Your task to perform on an android device: Go to ESPN.com Image 0: 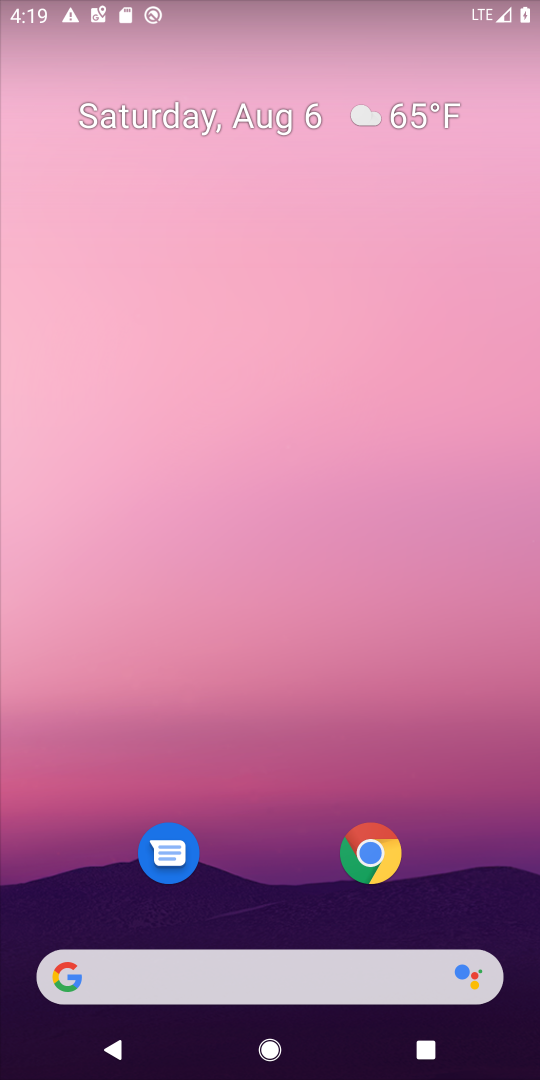
Step 0: click (364, 849)
Your task to perform on an android device: Go to ESPN.com Image 1: 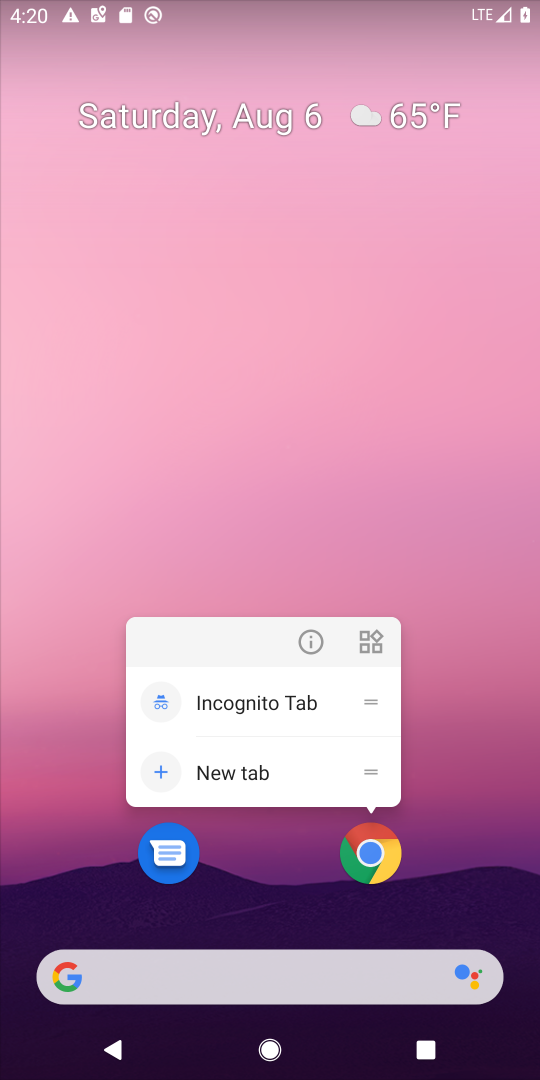
Step 1: click (364, 849)
Your task to perform on an android device: Go to ESPN.com Image 2: 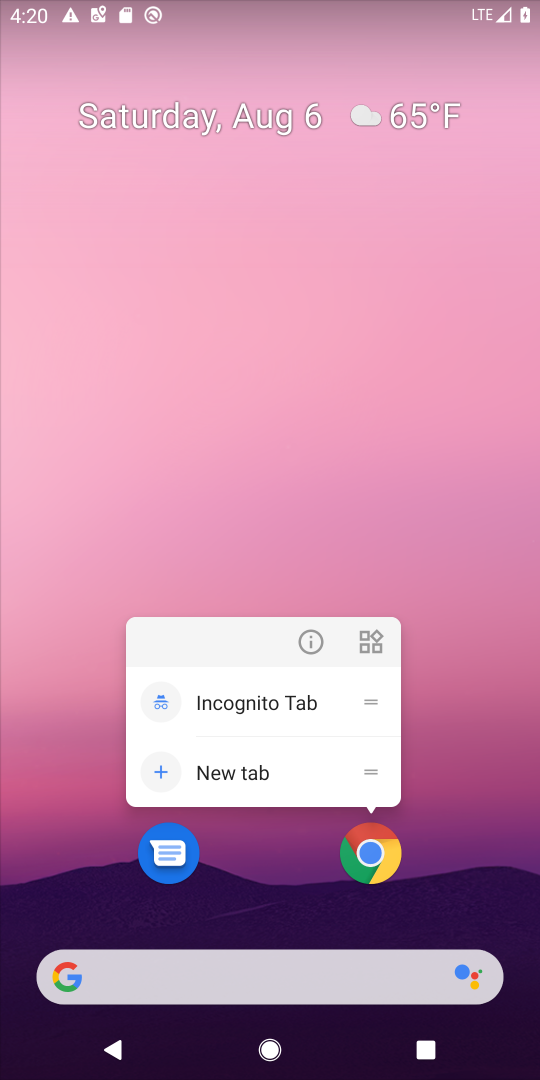
Step 2: click (365, 849)
Your task to perform on an android device: Go to ESPN.com Image 3: 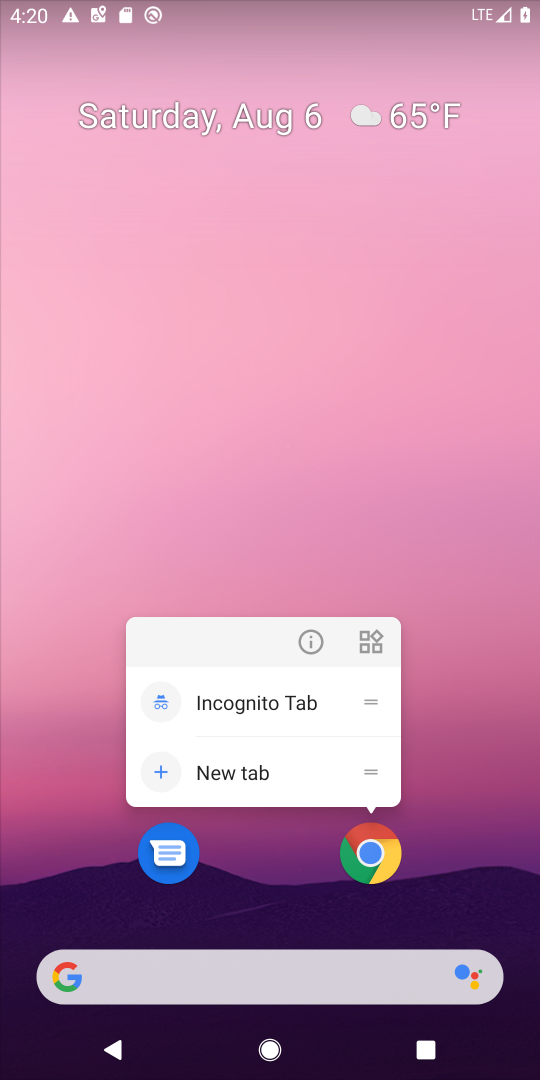
Step 3: click (376, 850)
Your task to perform on an android device: Go to ESPN.com Image 4: 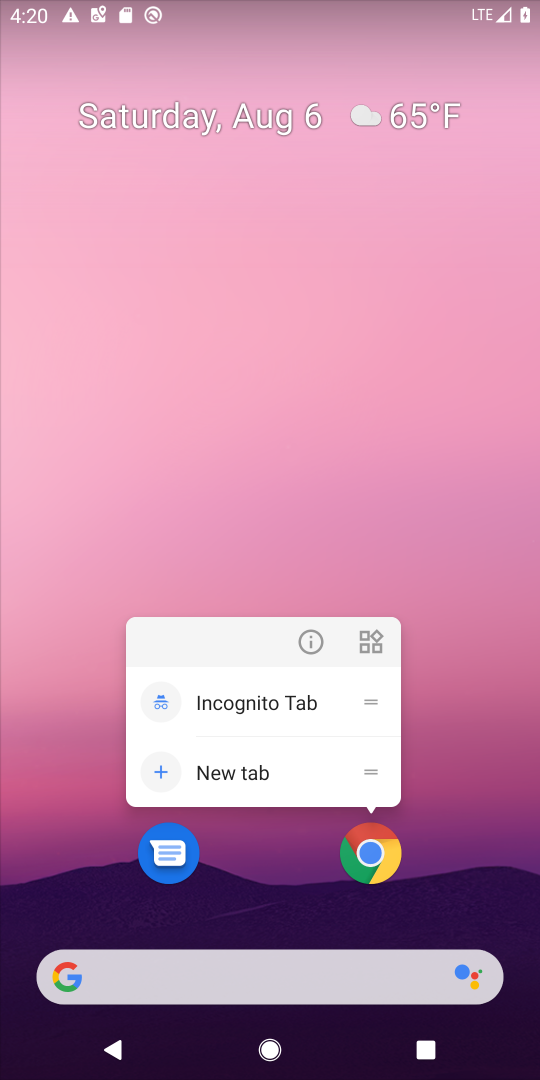
Step 4: click (365, 857)
Your task to perform on an android device: Go to ESPN.com Image 5: 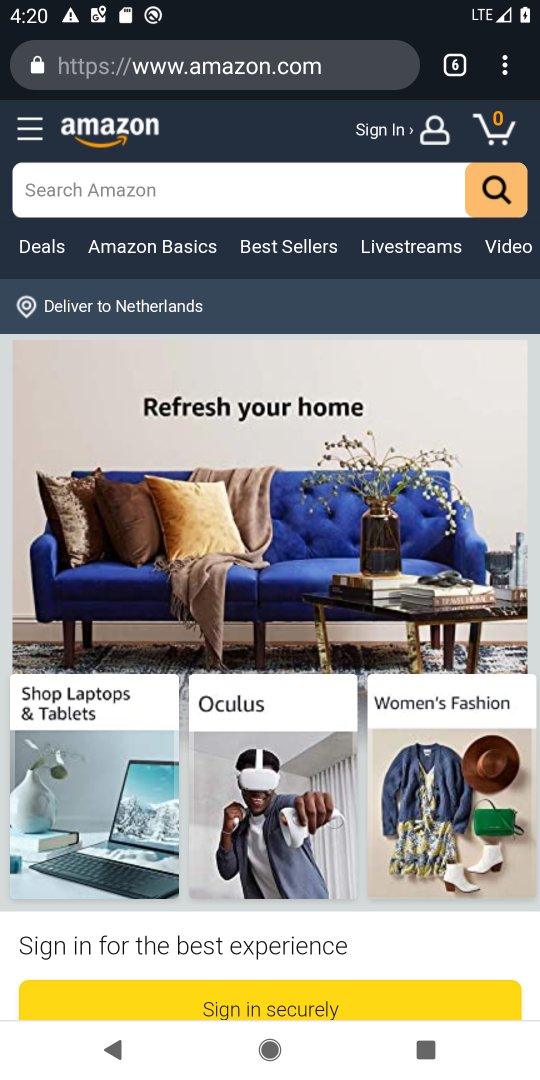
Step 5: click (451, 60)
Your task to perform on an android device: Go to ESPN.com Image 6: 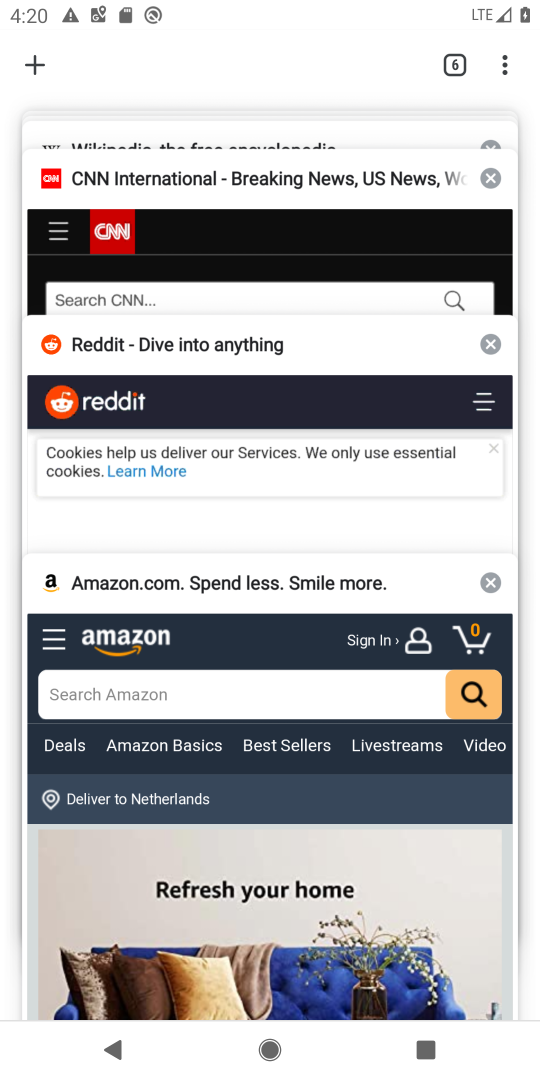
Step 6: drag from (230, 197) to (250, 907)
Your task to perform on an android device: Go to ESPN.com Image 7: 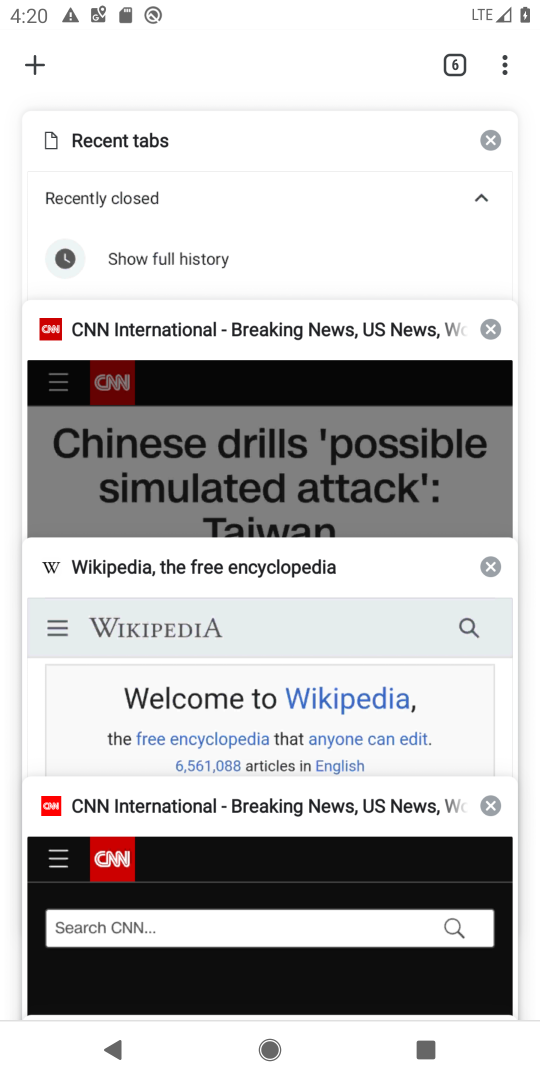
Step 7: click (48, 65)
Your task to perform on an android device: Go to ESPN.com Image 8: 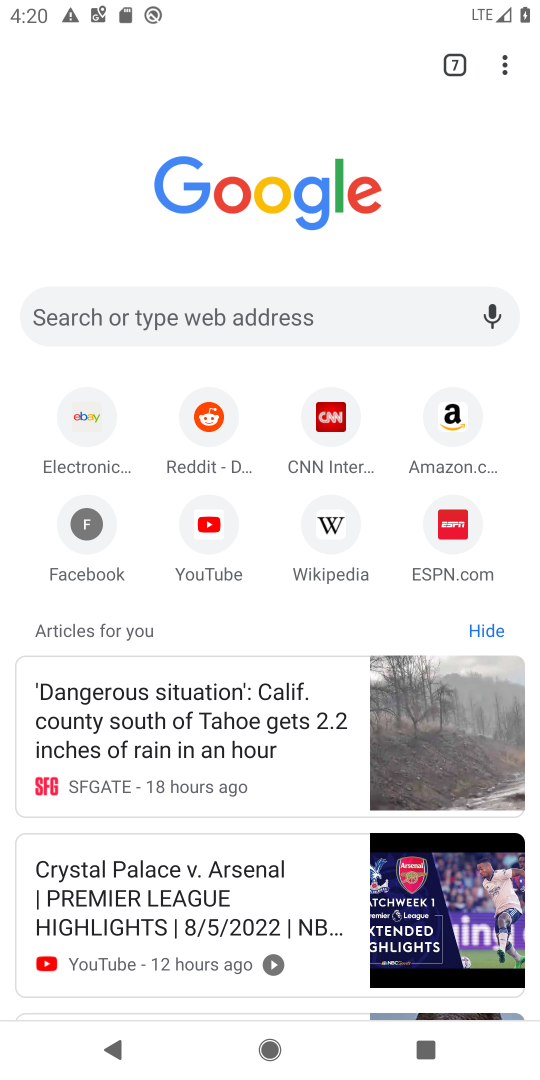
Step 8: click (439, 531)
Your task to perform on an android device: Go to ESPN.com Image 9: 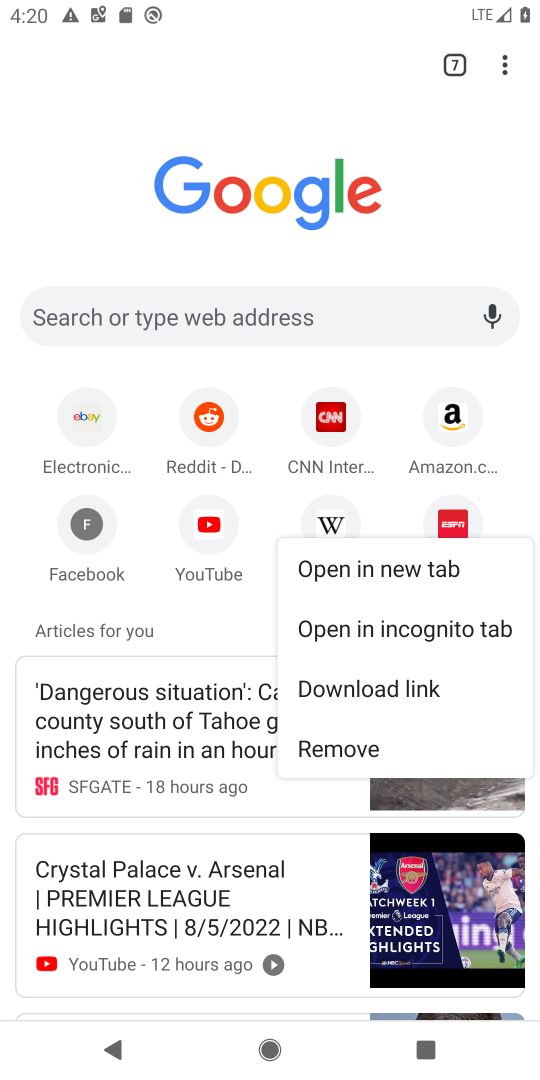
Step 9: click (452, 535)
Your task to perform on an android device: Go to ESPN.com Image 10: 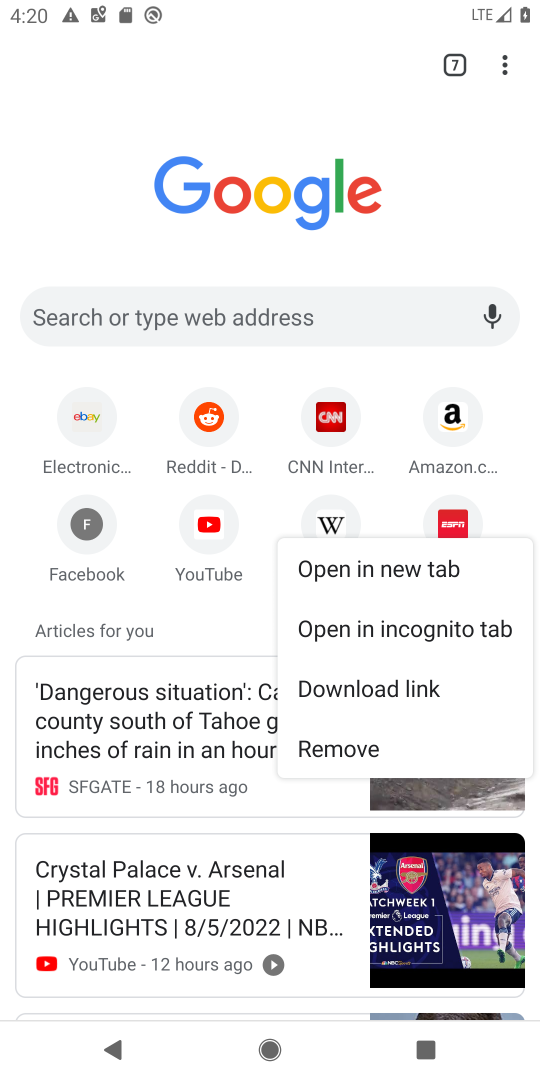
Step 10: click (452, 521)
Your task to perform on an android device: Go to ESPN.com Image 11: 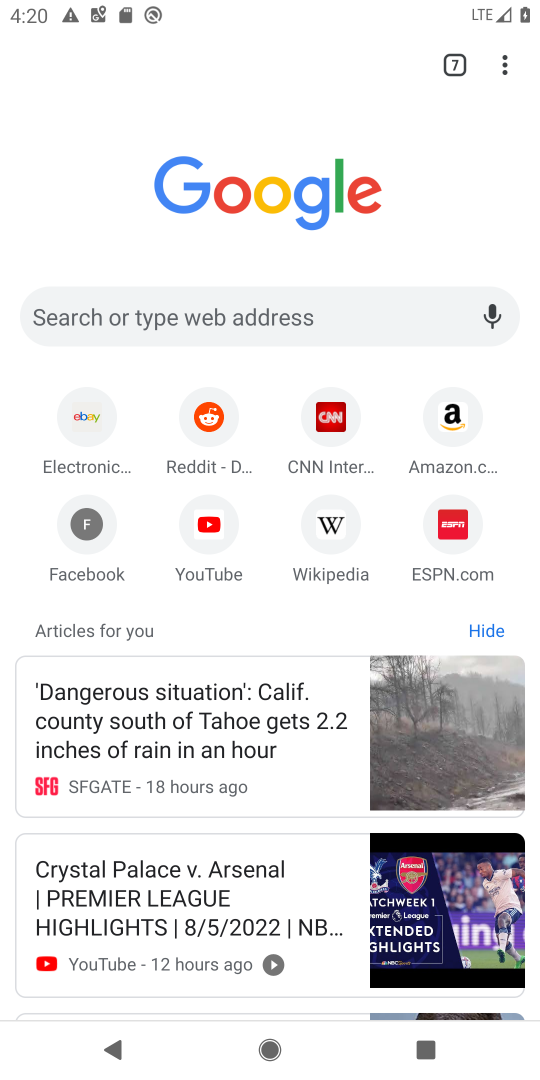
Step 11: click (453, 524)
Your task to perform on an android device: Go to ESPN.com Image 12: 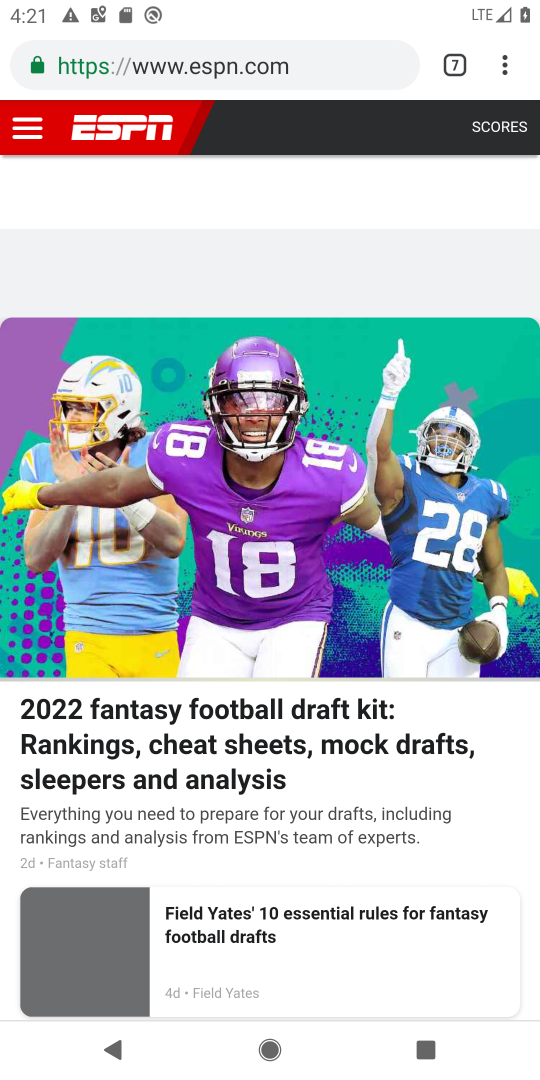
Step 12: task complete